Your task to perform on an android device: What is the news today? Image 0: 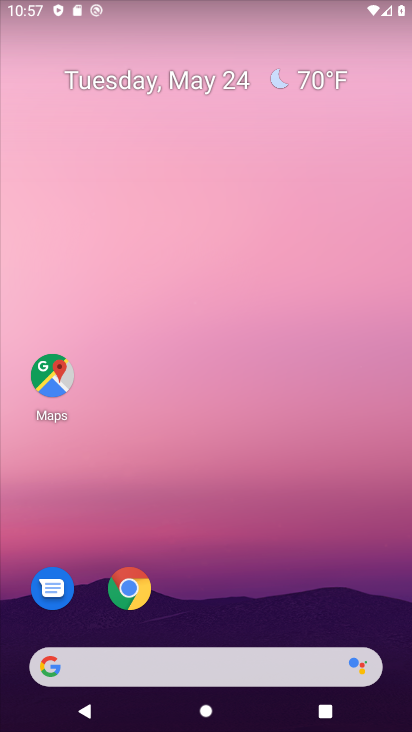
Step 0: press home button
Your task to perform on an android device: What is the news today? Image 1: 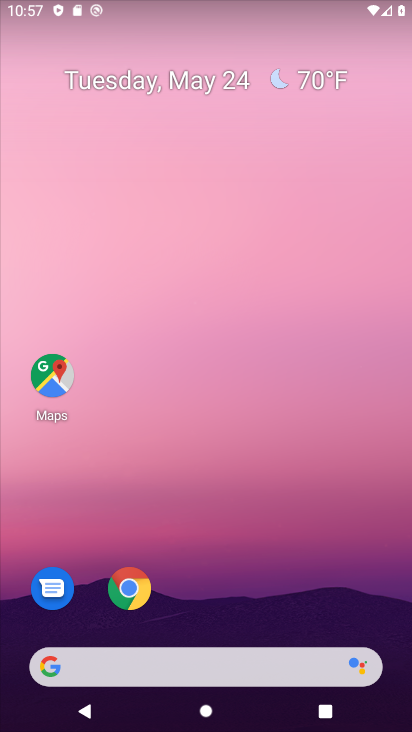
Step 1: task complete